Your task to perform on an android device: Install the ESPN app Image 0: 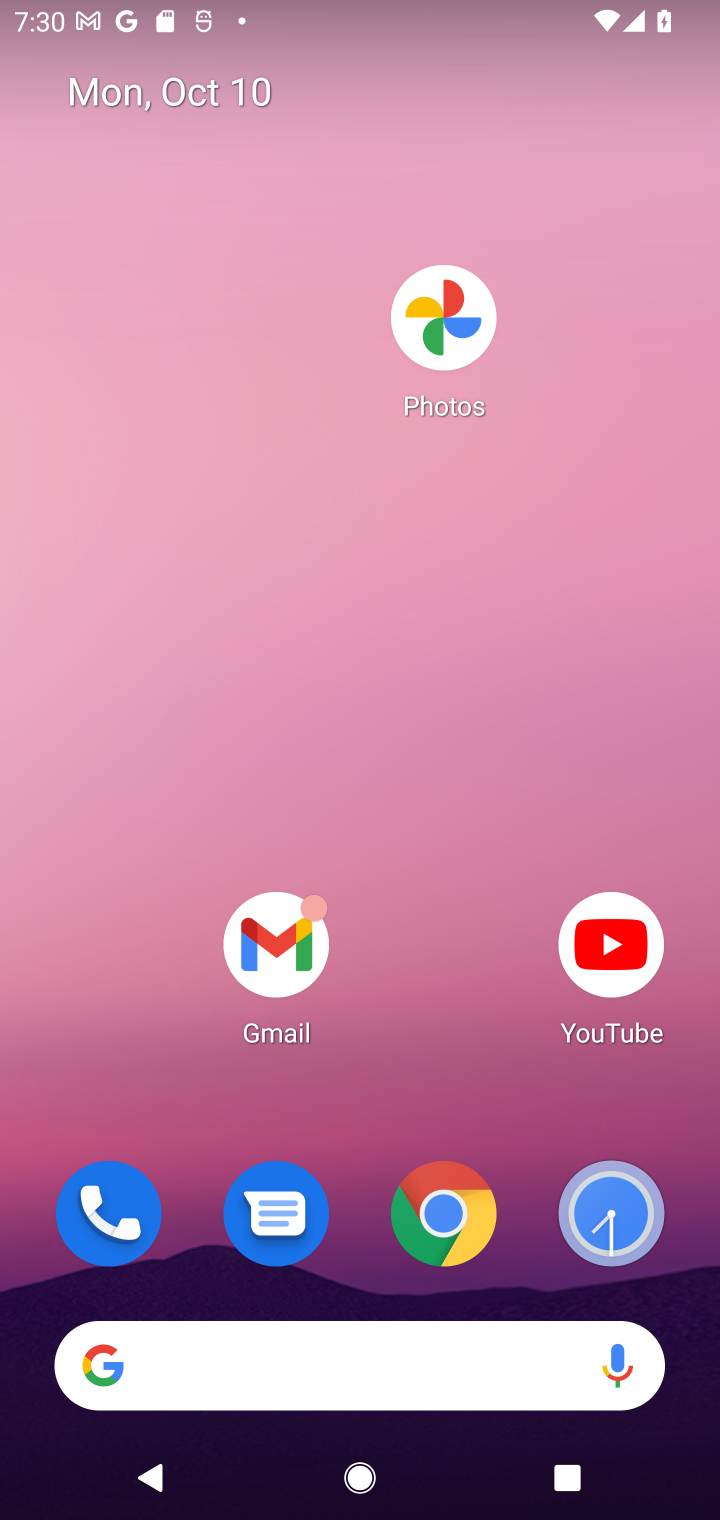
Step 0: drag from (390, 1030) to (357, 554)
Your task to perform on an android device: Install the ESPN app Image 1: 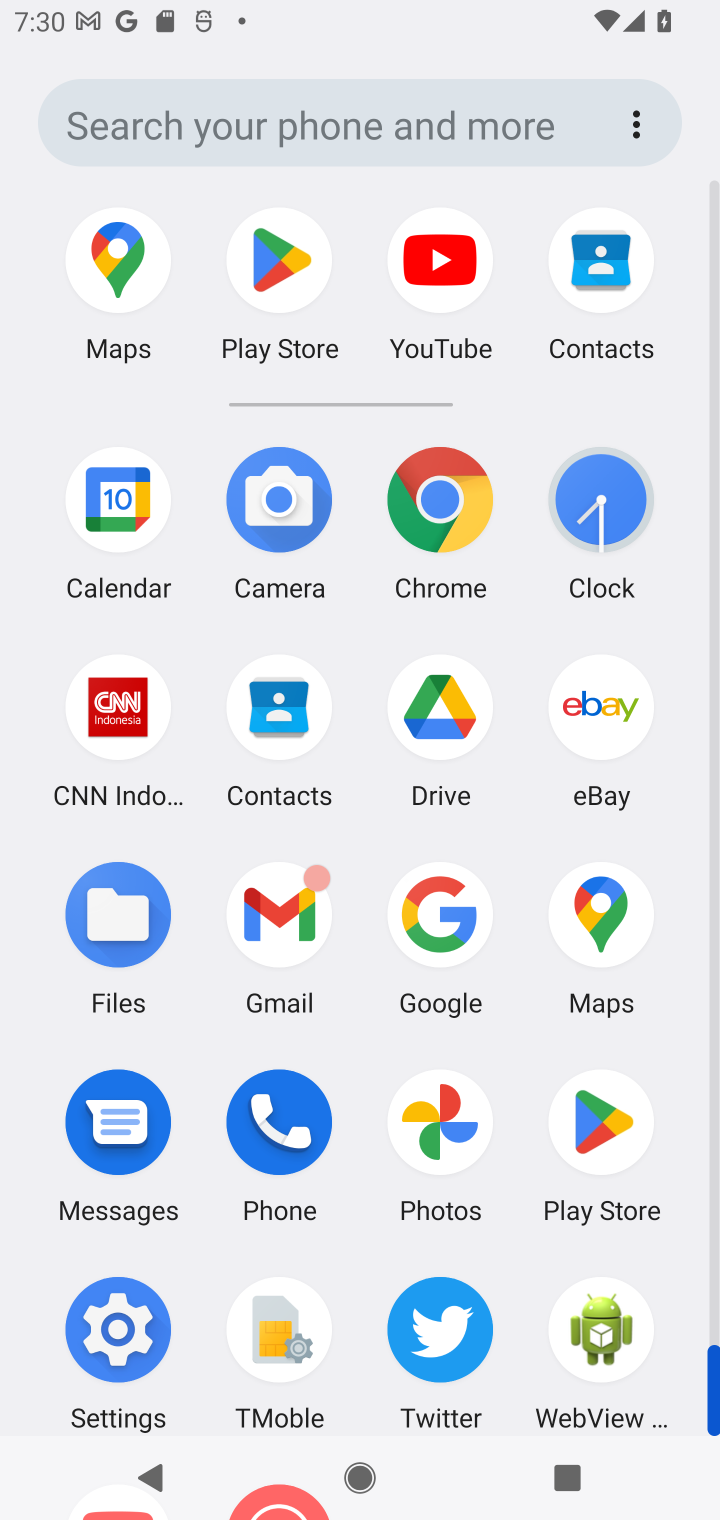
Step 1: click (297, 292)
Your task to perform on an android device: Install the ESPN app Image 2: 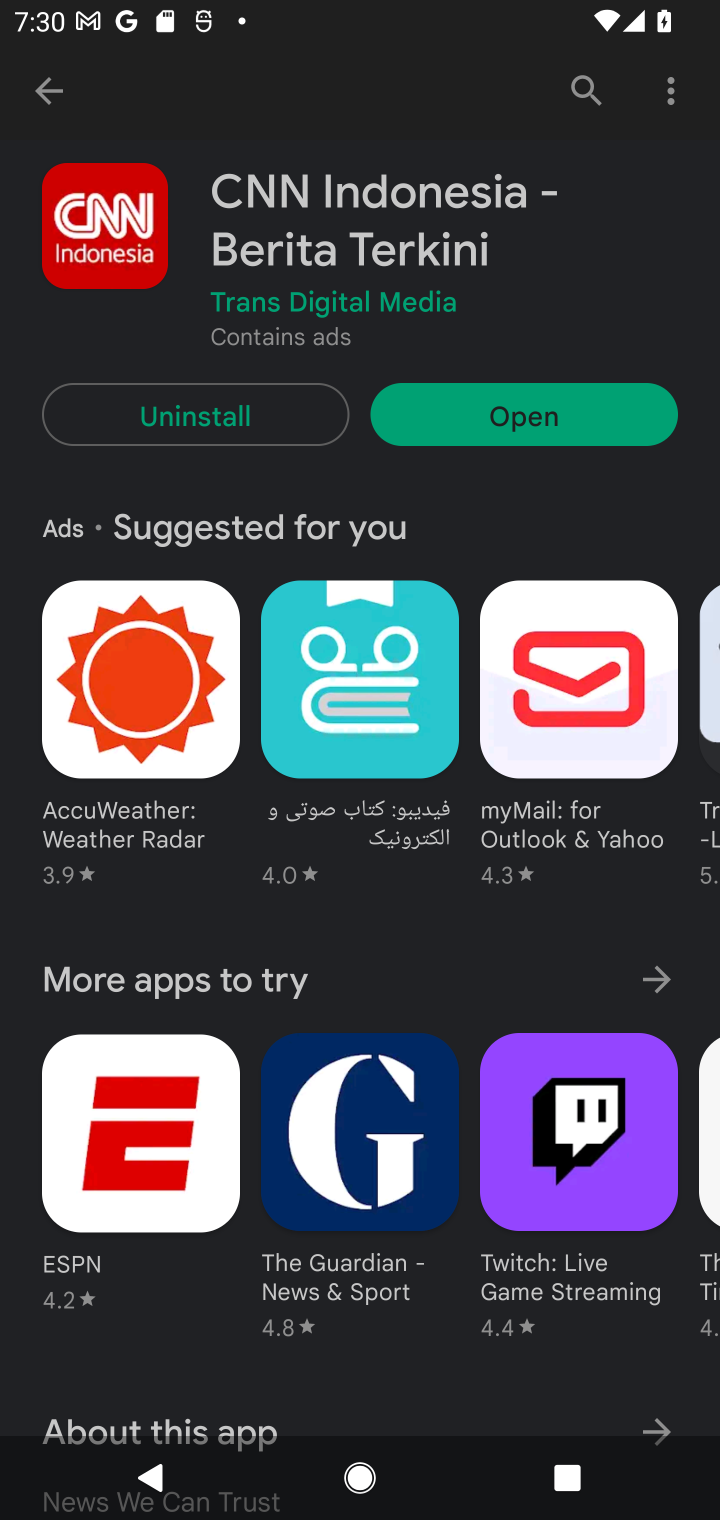
Step 2: click (590, 86)
Your task to perform on an android device: Install the ESPN app Image 3: 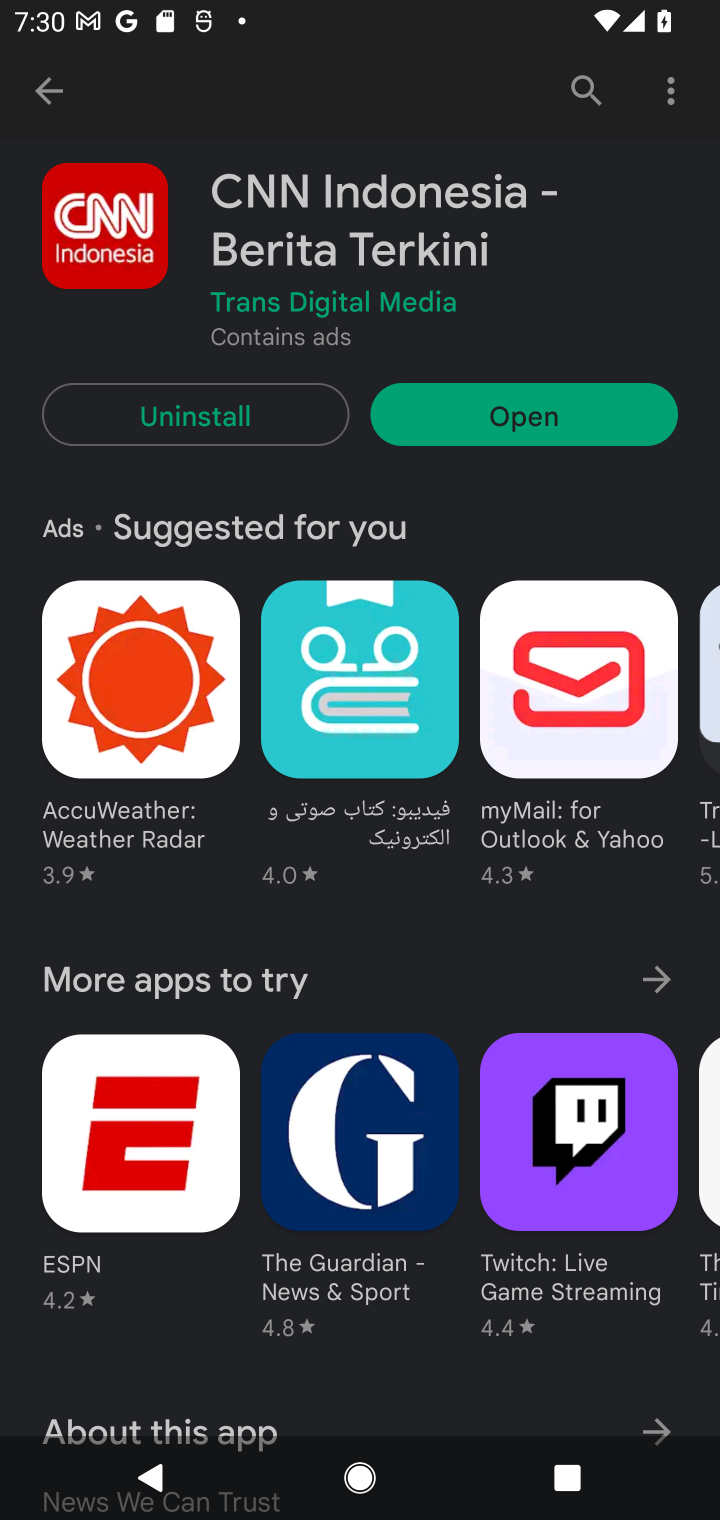
Step 3: click (586, 83)
Your task to perform on an android device: Install the ESPN app Image 4: 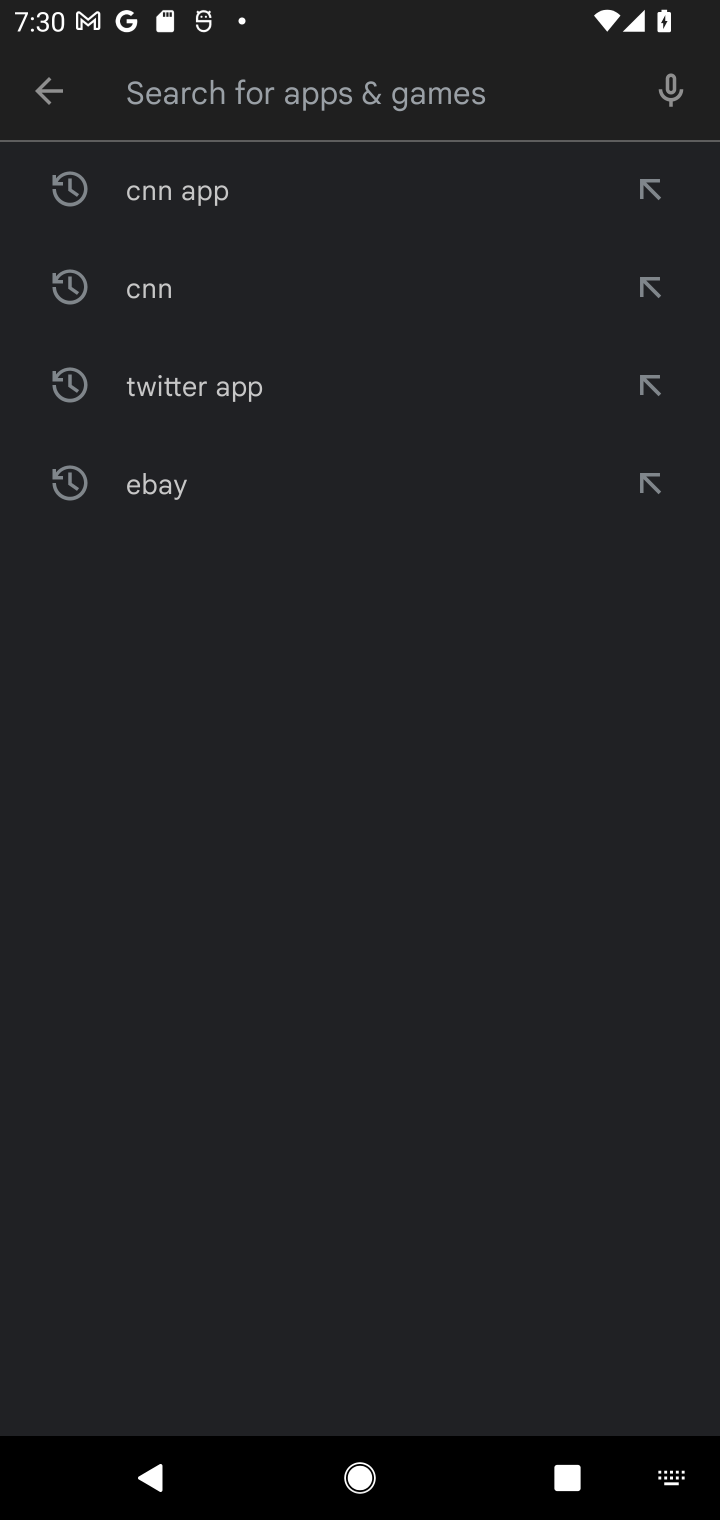
Step 4: type "ESPN app"
Your task to perform on an android device: Install the ESPN app Image 5: 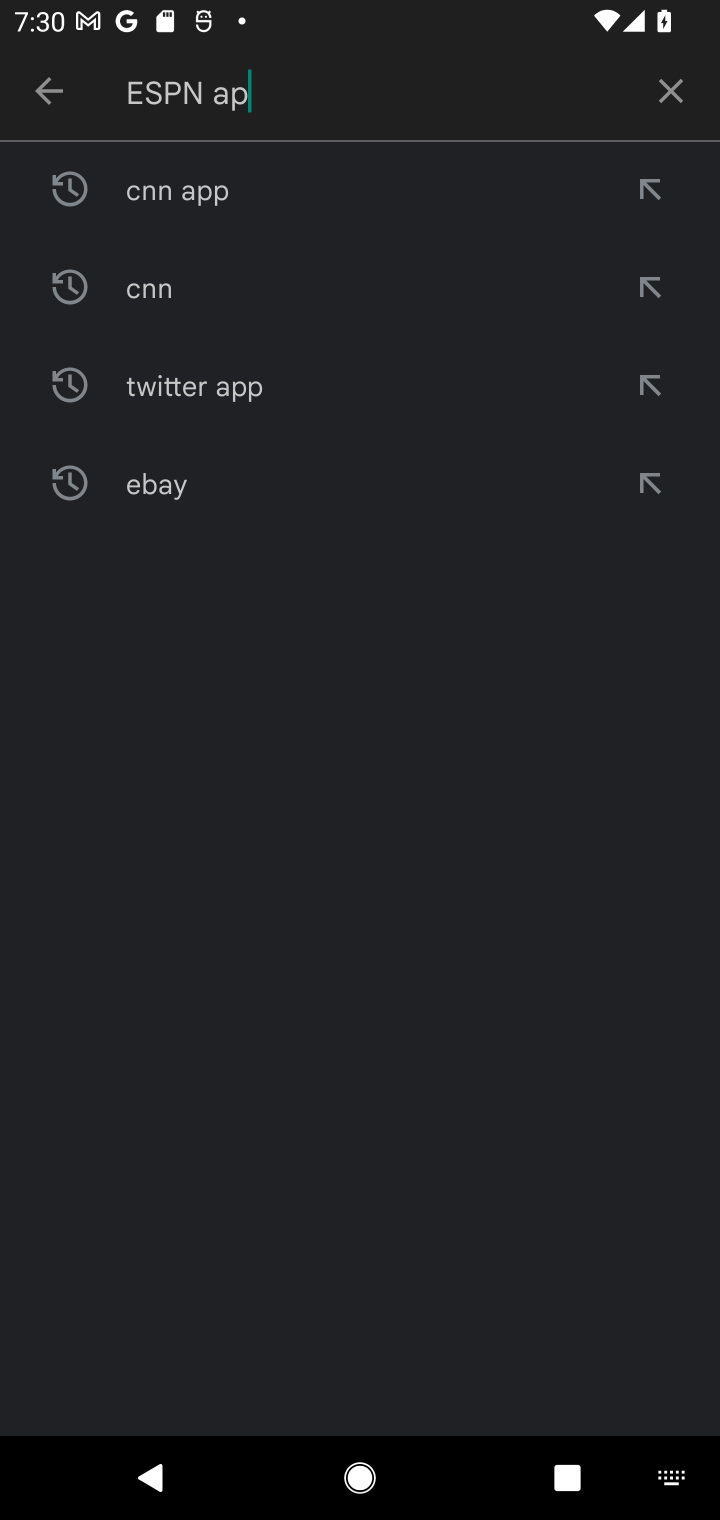
Step 5: type ""
Your task to perform on an android device: Install the ESPN app Image 6: 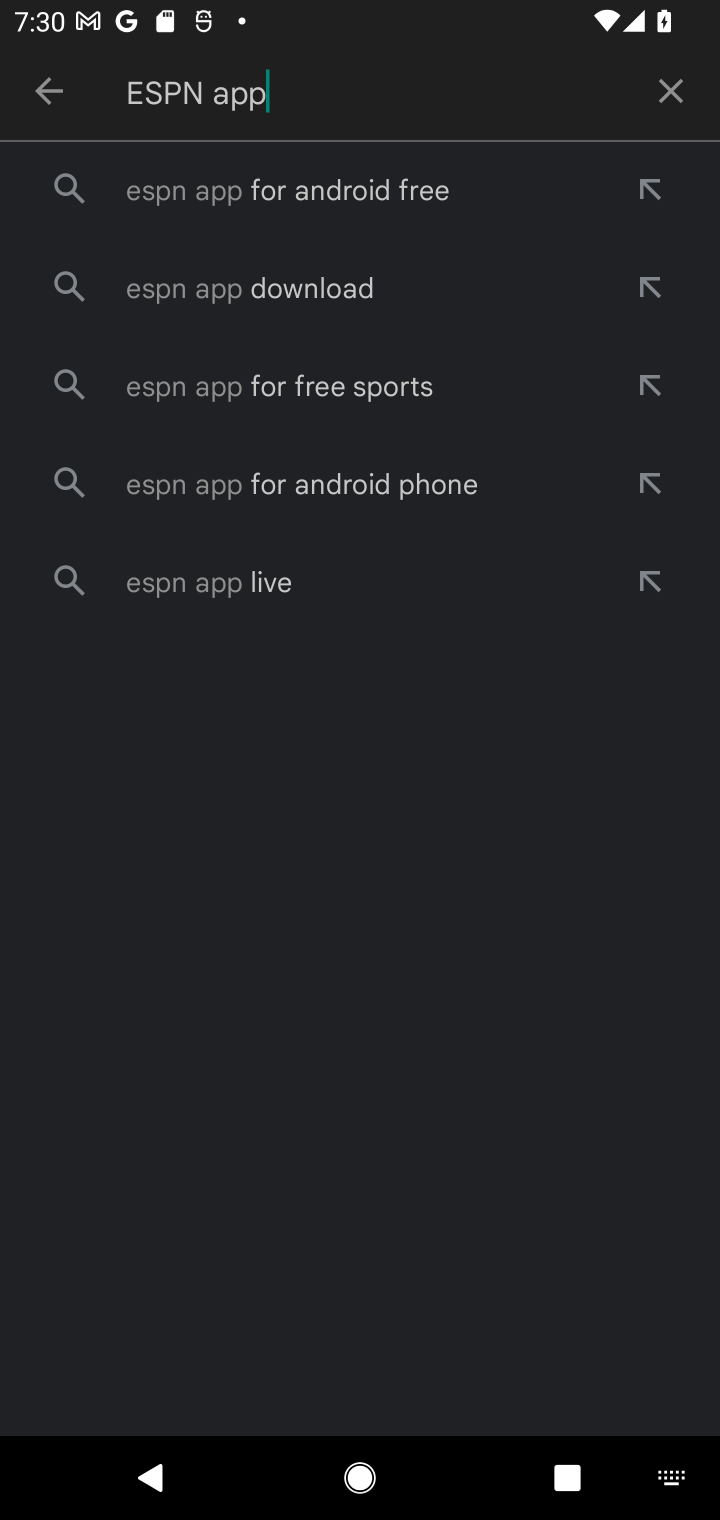
Step 6: click (366, 312)
Your task to perform on an android device: Install the ESPN app Image 7: 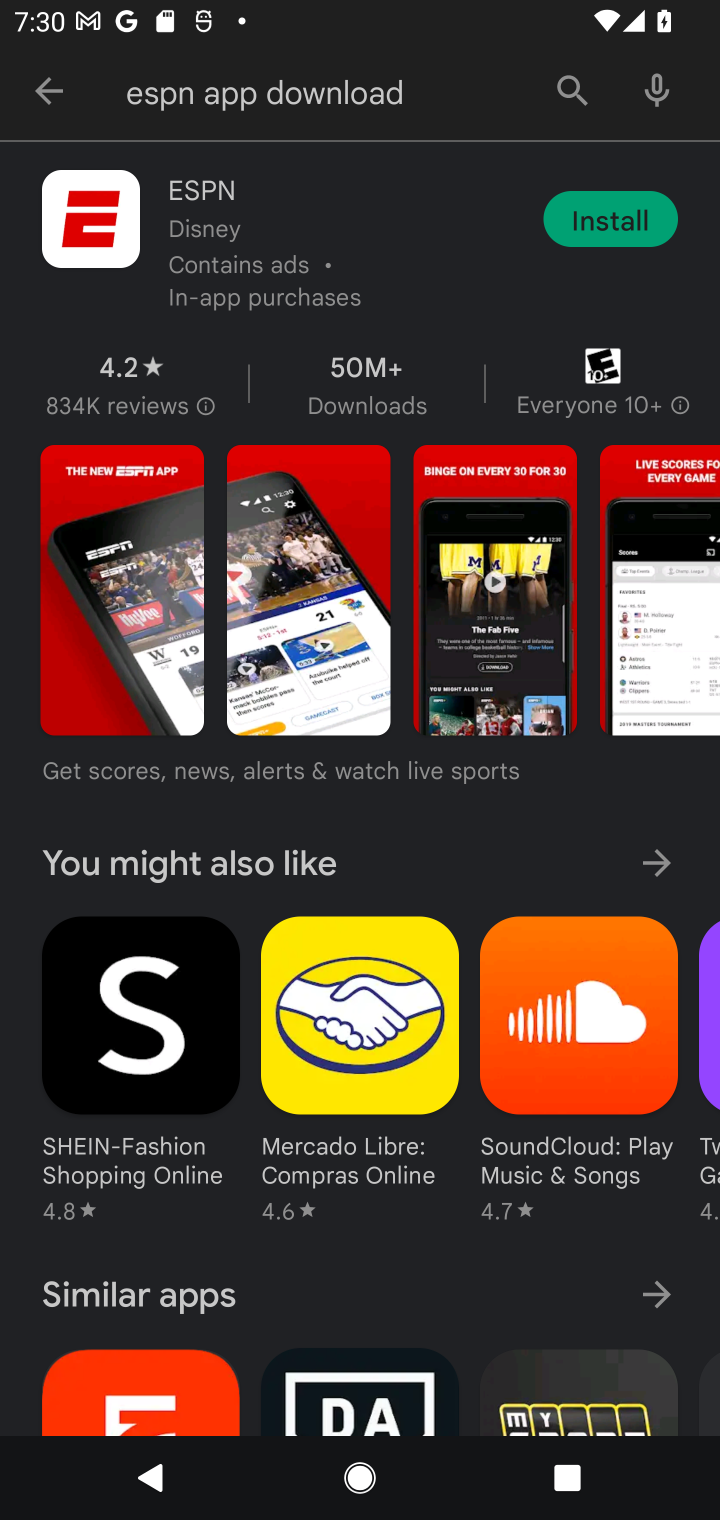
Step 7: click (614, 211)
Your task to perform on an android device: Install the ESPN app Image 8: 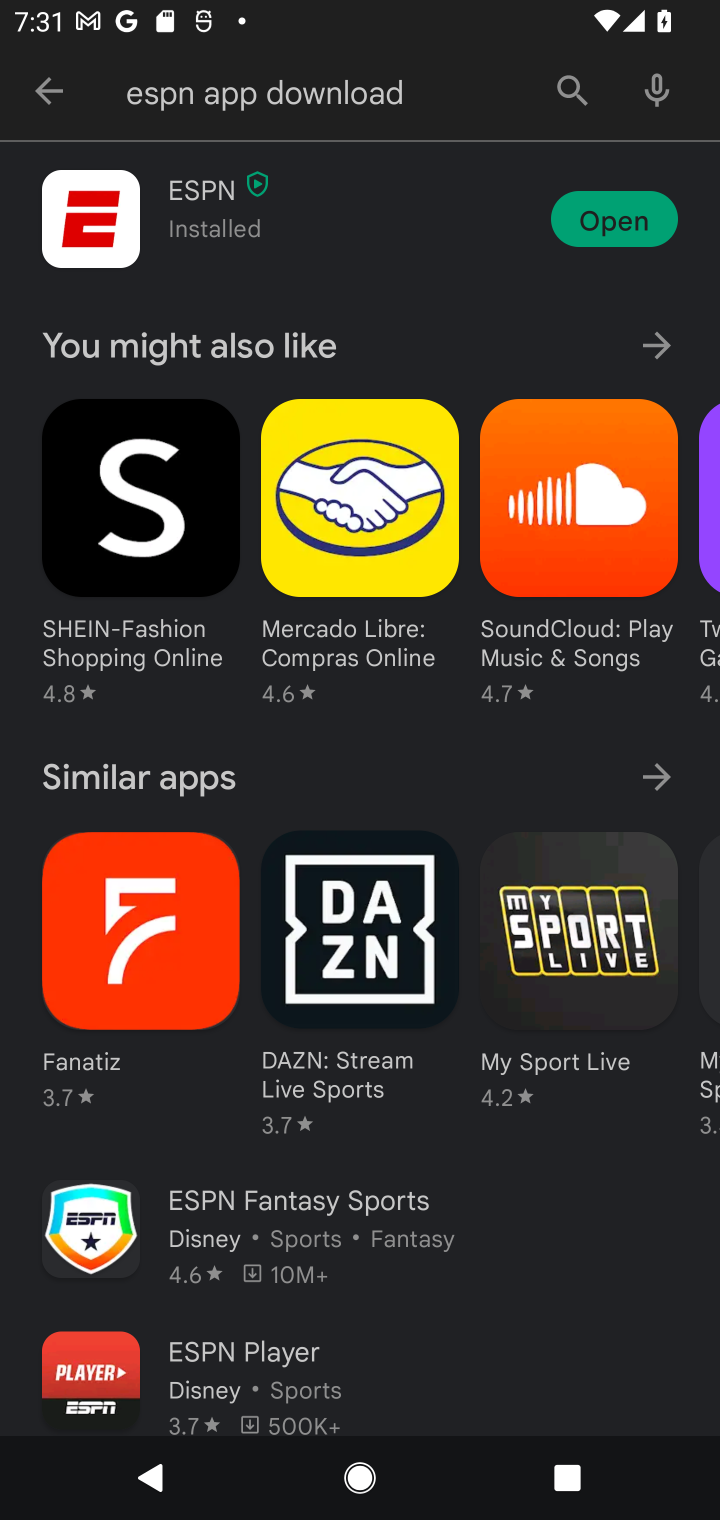
Step 8: task complete